Your task to perform on an android device: check data usage Image 0: 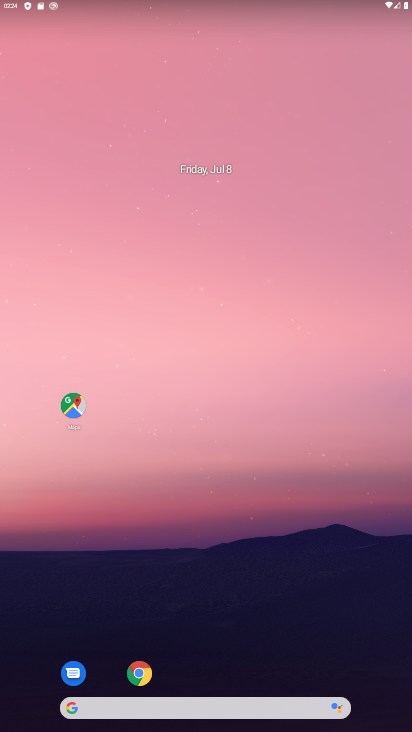
Step 0: press home button
Your task to perform on an android device: check data usage Image 1: 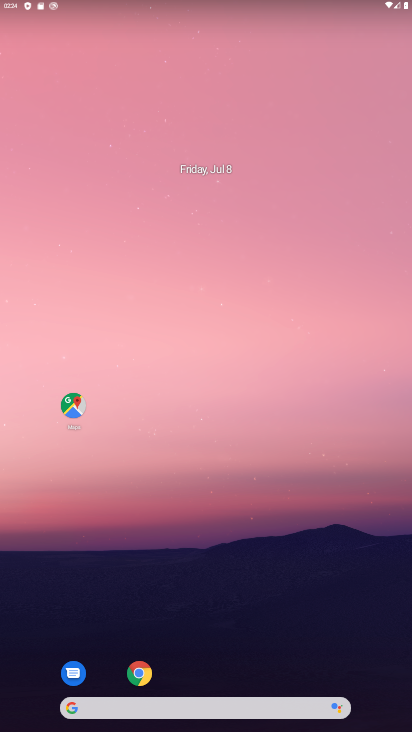
Step 1: drag from (320, 684) to (325, 97)
Your task to perform on an android device: check data usage Image 2: 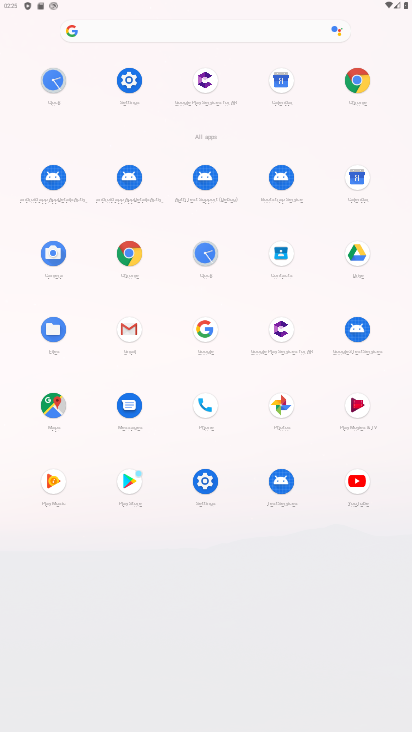
Step 2: click (123, 85)
Your task to perform on an android device: check data usage Image 3: 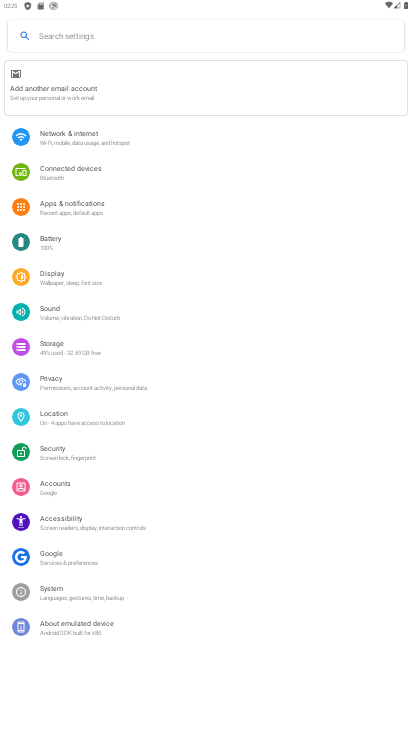
Step 3: click (41, 350)
Your task to perform on an android device: check data usage Image 4: 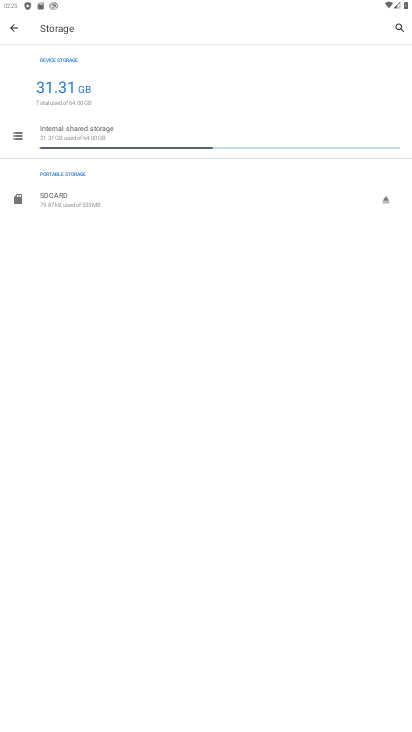
Step 4: task complete